Your task to perform on an android device: turn off notifications settings in the gmail app Image 0: 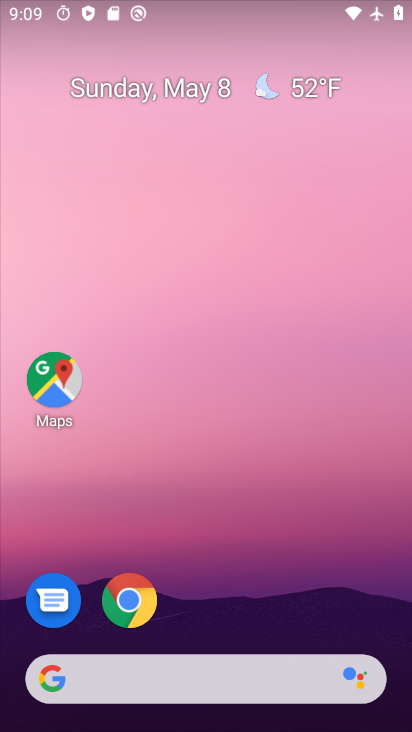
Step 0: drag from (205, 588) to (236, 161)
Your task to perform on an android device: turn off notifications settings in the gmail app Image 1: 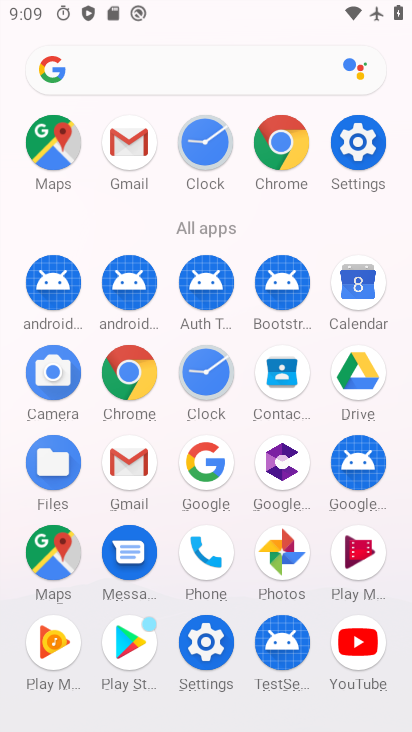
Step 1: click (147, 149)
Your task to perform on an android device: turn off notifications settings in the gmail app Image 2: 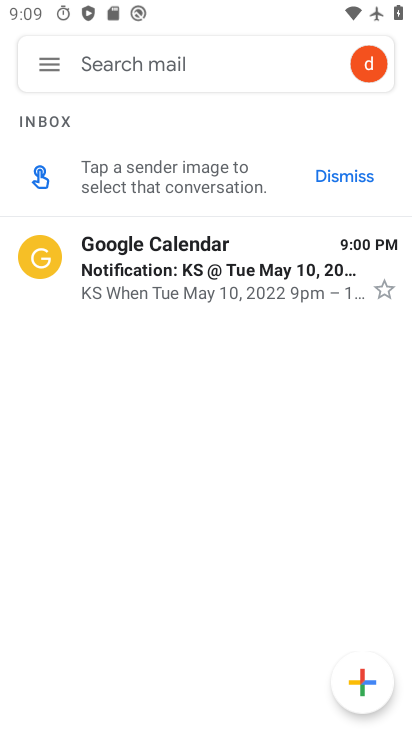
Step 2: click (50, 72)
Your task to perform on an android device: turn off notifications settings in the gmail app Image 3: 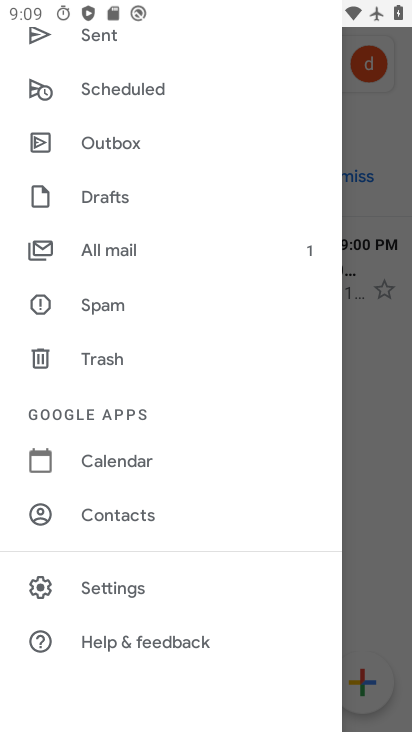
Step 3: click (136, 566)
Your task to perform on an android device: turn off notifications settings in the gmail app Image 4: 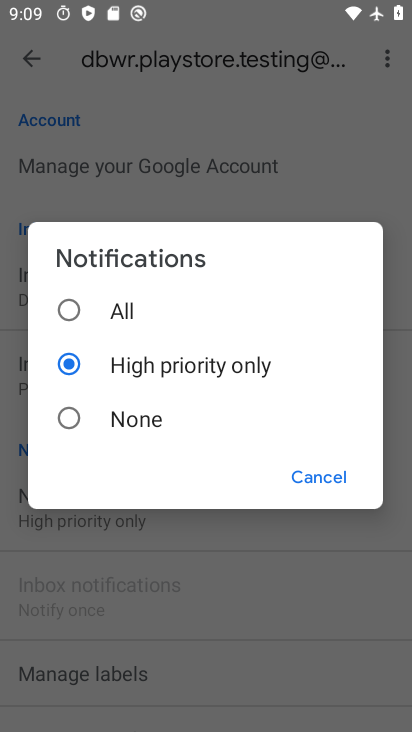
Step 4: press back button
Your task to perform on an android device: turn off notifications settings in the gmail app Image 5: 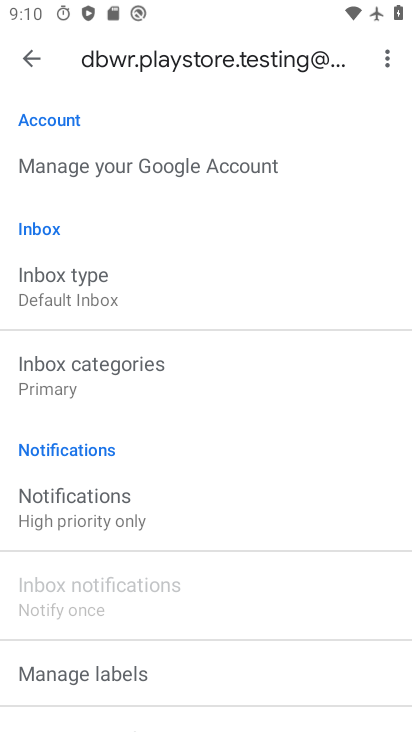
Step 5: click (113, 509)
Your task to perform on an android device: turn off notifications settings in the gmail app Image 6: 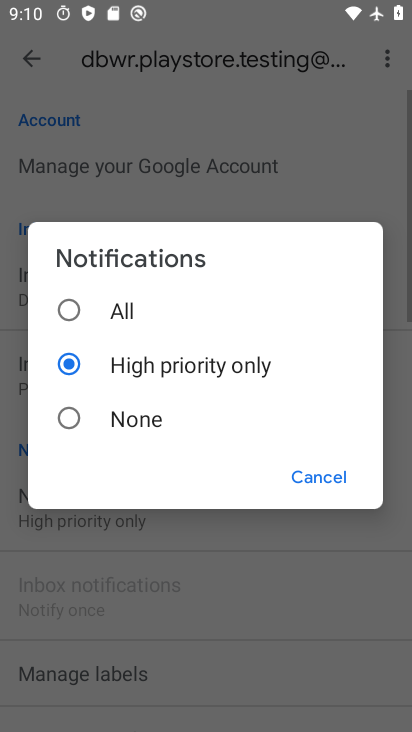
Step 6: click (170, 417)
Your task to perform on an android device: turn off notifications settings in the gmail app Image 7: 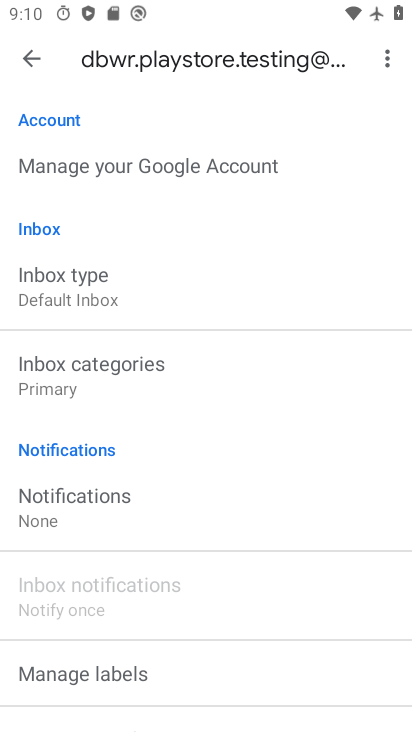
Step 7: task complete